Your task to perform on an android device: snooze an email in the gmail app Image 0: 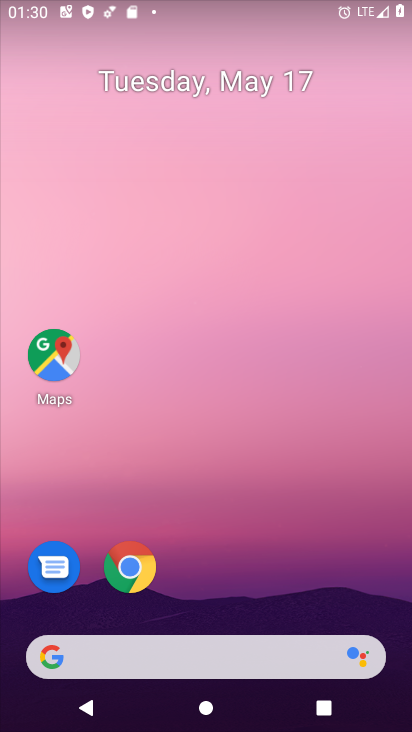
Step 0: drag from (282, 562) to (188, 134)
Your task to perform on an android device: snooze an email in the gmail app Image 1: 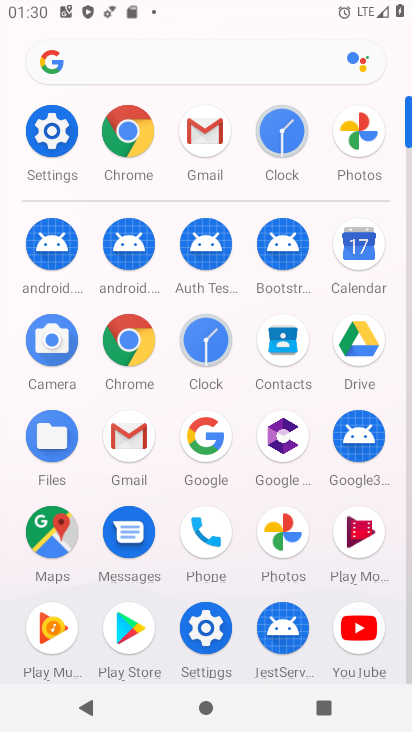
Step 1: click (195, 138)
Your task to perform on an android device: snooze an email in the gmail app Image 2: 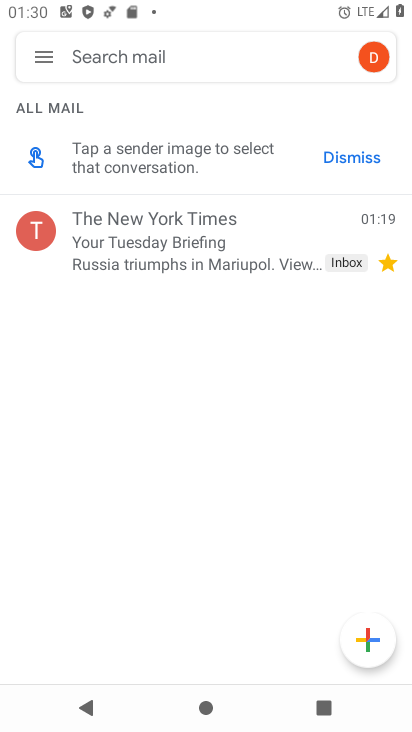
Step 2: click (167, 233)
Your task to perform on an android device: snooze an email in the gmail app Image 3: 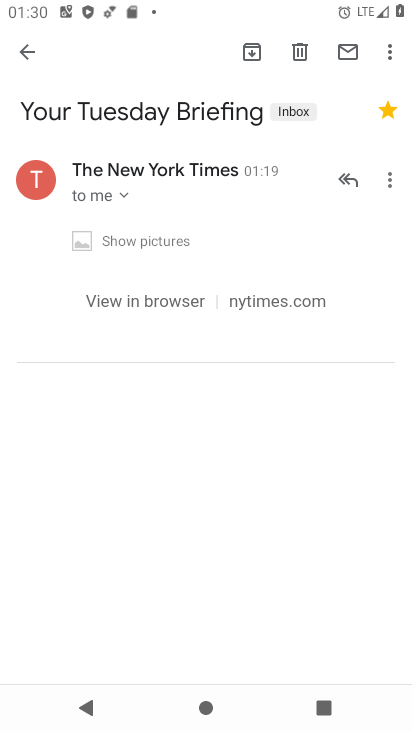
Step 3: click (387, 46)
Your task to perform on an android device: snooze an email in the gmail app Image 4: 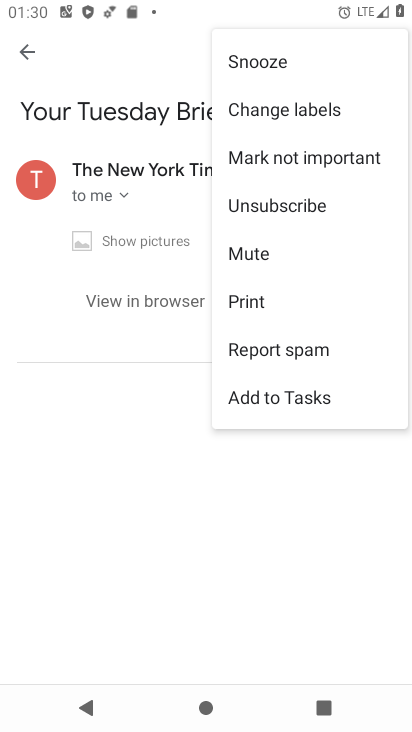
Step 4: click (251, 57)
Your task to perform on an android device: snooze an email in the gmail app Image 5: 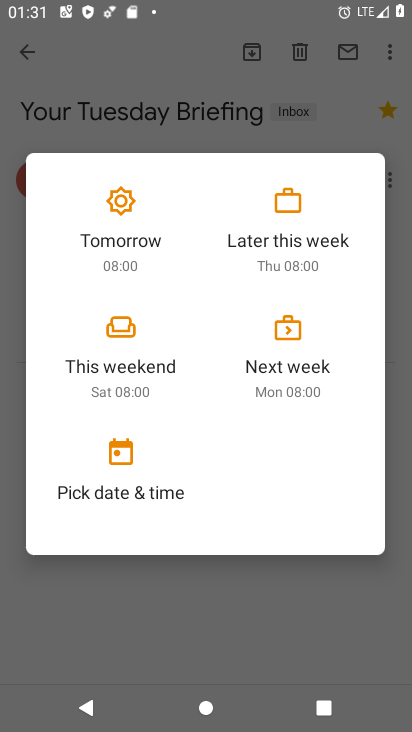
Step 5: click (117, 213)
Your task to perform on an android device: snooze an email in the gmail app Image 6: 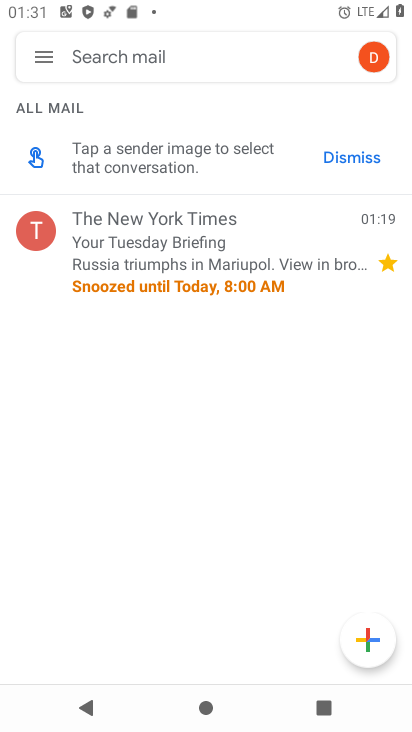
Step 6: task complete